Your task to perform on an android device: Go to Google maps Image 0: 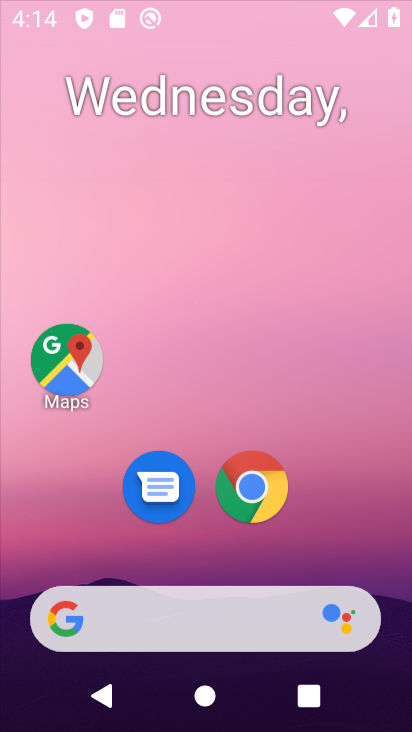
Step 0: press home button
Your task to perform on an android device: Go to Google maps Image 1: 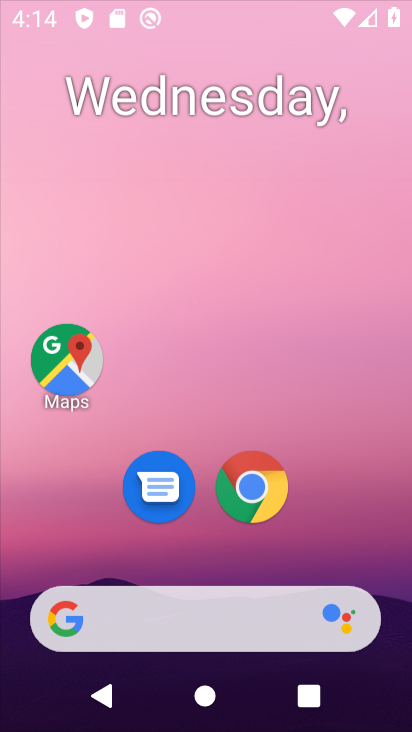
Step 1: click (218, 175)
Your task to perform on an android device: Go to Google maps Image 2: 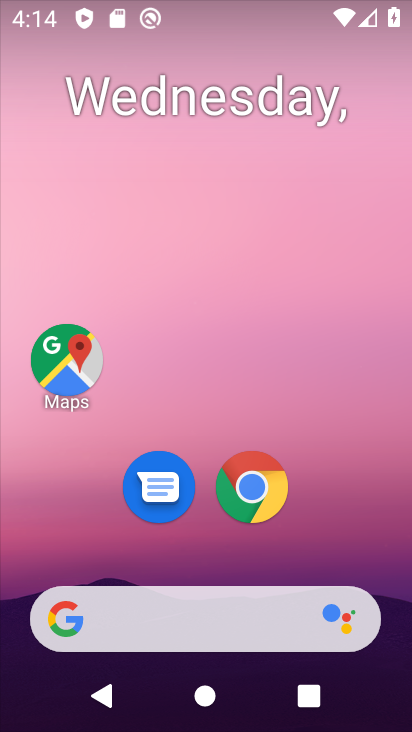
Step 2: drag from (206, 556) to (250, 130)
Your task to perform on an android device: Go to Google maps Image 3: 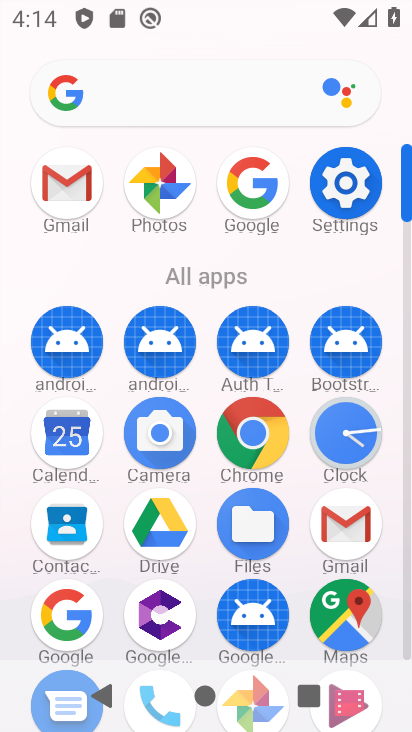
Step 3: click (346, 608)
Your task to perform on an android device: Go to Google maps Image 4: 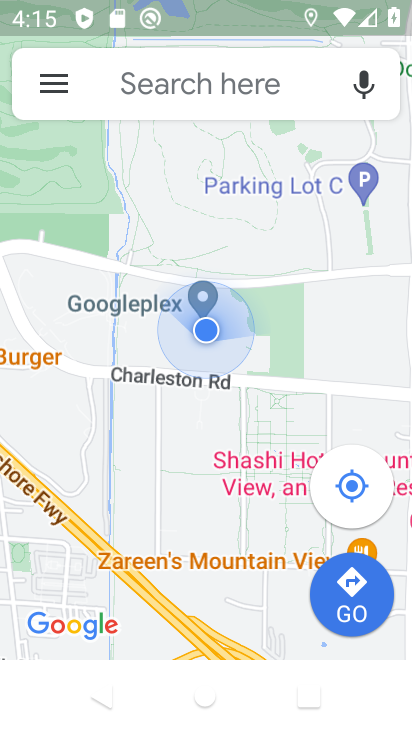
Step 4: click (54, 79)
Your task to perform on an android device: Go to Google maps Image 5: 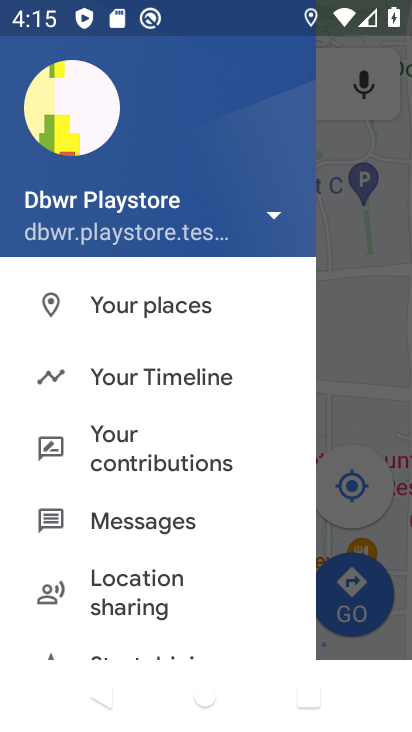
Step 5: task complete